Your task to perform on an android device: find snoozed emails in the gmail app Image 0: 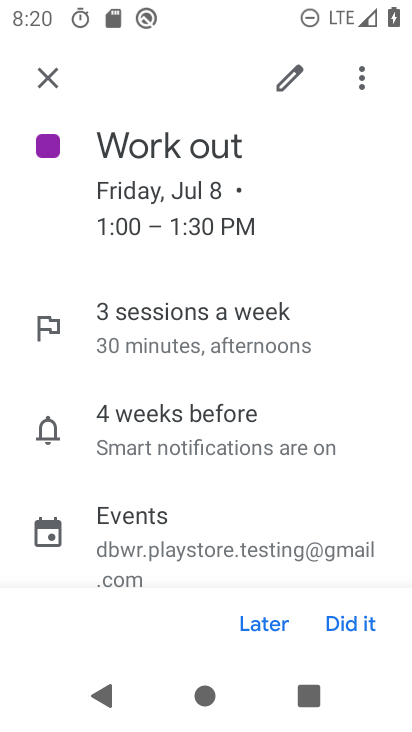
Step 0: press home button
Your task to perform on an android device: find snoozed emails in the gmail app Image 1: 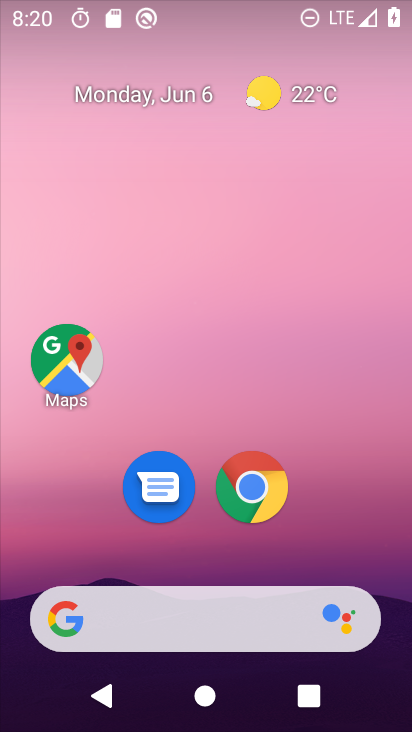
Step 1: drag from (391, 625) to (252, 68)
Your task to perform on an android device: find snoozed emails in the gmail app Image 2: 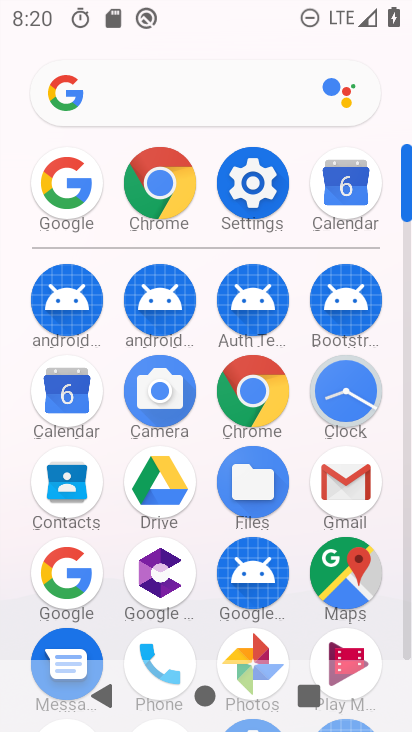
Step 2: click (344, 477)
Your task to perform on an android device: find snoozed emails in the gmail app Image 3: 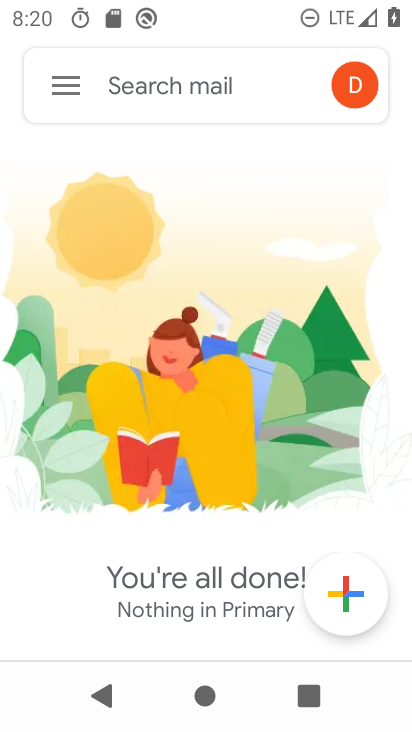
Step 3: click (61, 89)
Your task to perform on an android device: find snoozed emails in the gmail app Image 4: 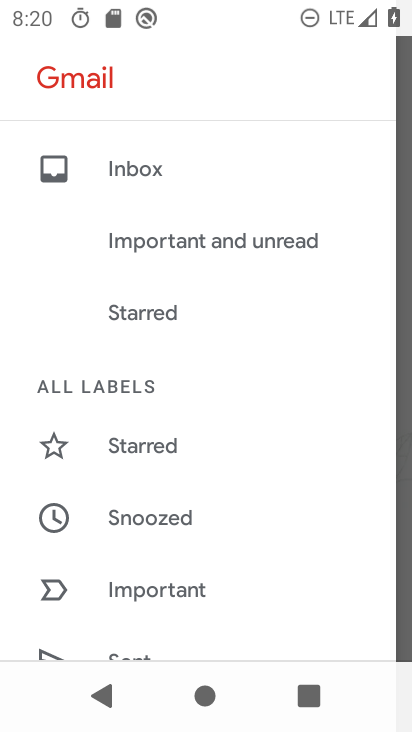
Step 4: click (157, 517)
Your task to perform on an android device: find snoozed emails in the gmail app Image 5: 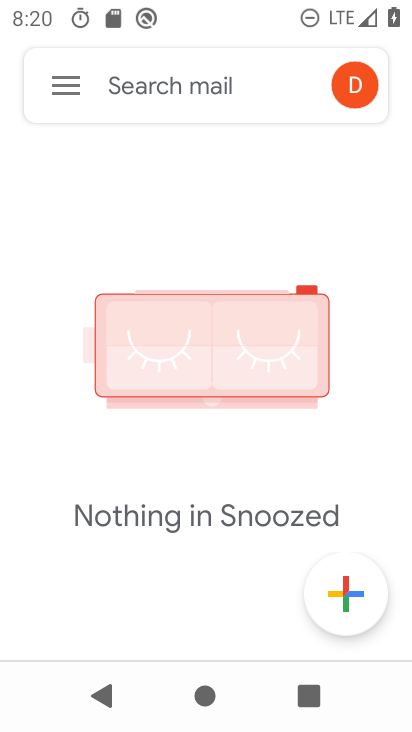
Step 5: task complete